Your task to perform on an android device: remove spam from my inbox in the gmail app Image 0: 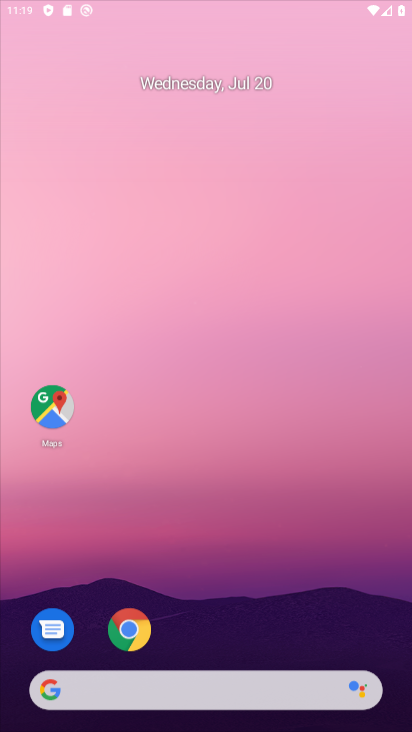
Step 0: press home button
Your task to perform on an android device: remove spam from my inbox in the gmail app Image 1: 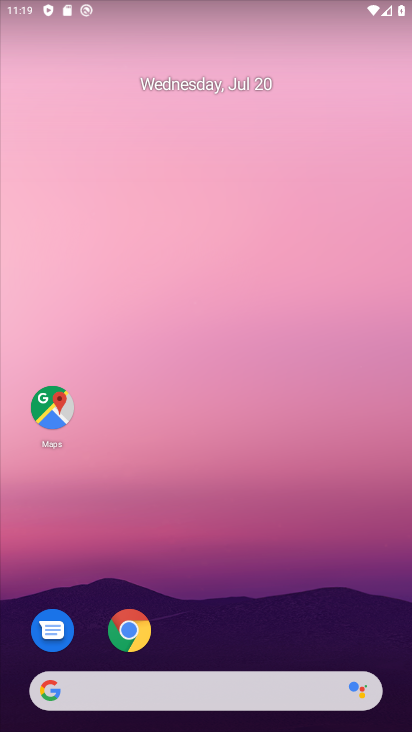
Step 1: drag from (259, 705) to (262, 163)
Your task to perform on an android device: remove spam from my inbox in the gmail app Image 2: 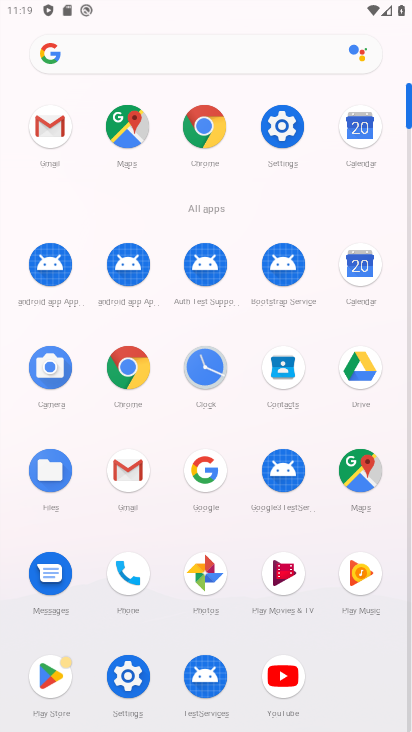
Step 2: click (132, 481)
Your task to perform on an android device: remove spam from my inbox in the gmail app Image 3: 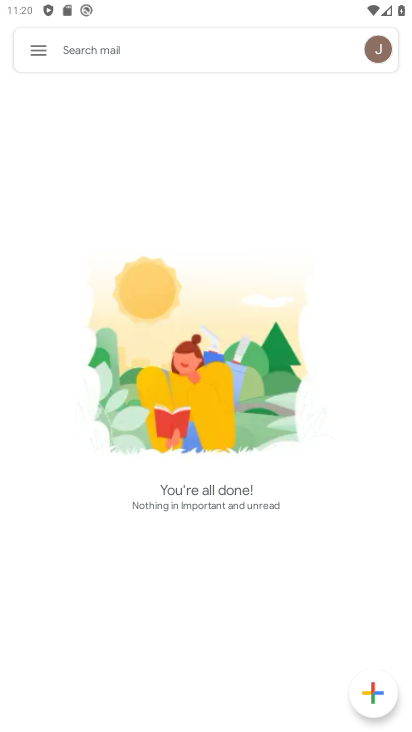
Step 3: click (38, 40)
Your task to perform on an android device: remove spam from my inbox in the gmail app Image 4: 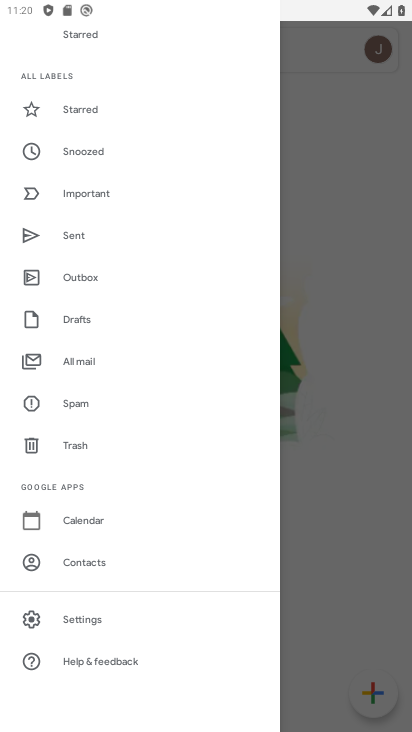
Step 4: click (83, 405)
Your task to perform on an android device: remove spam from my inbox in the gmail app Image 5: 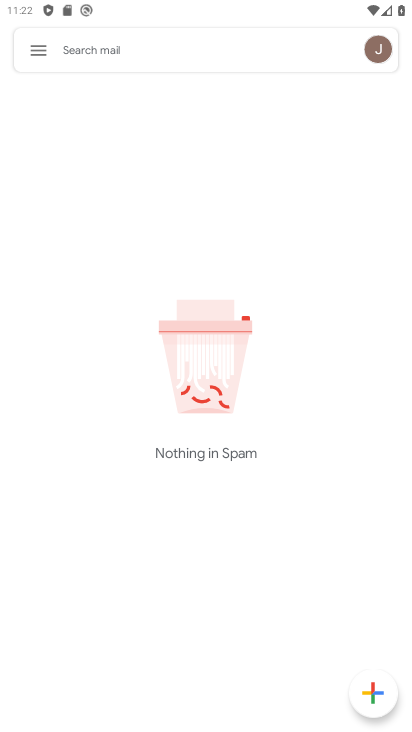
Step 5: task complete